Your task to perform on an android device: turn on showing notifications on the lock screen Image 0: 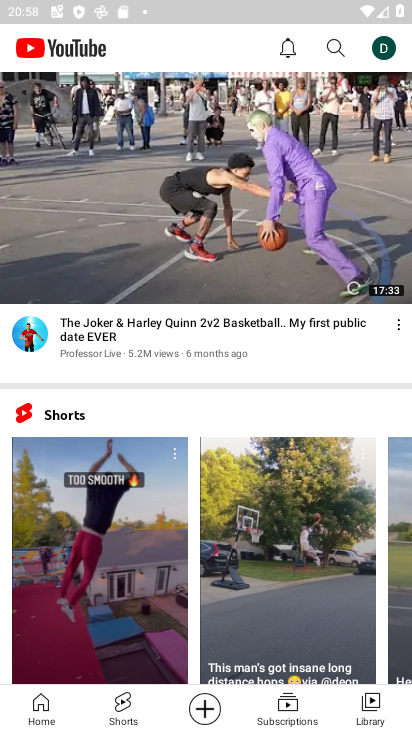
Step 0: press home button
Your task to perform on an android device: turn on showing notifications on the lock screen Image 1: 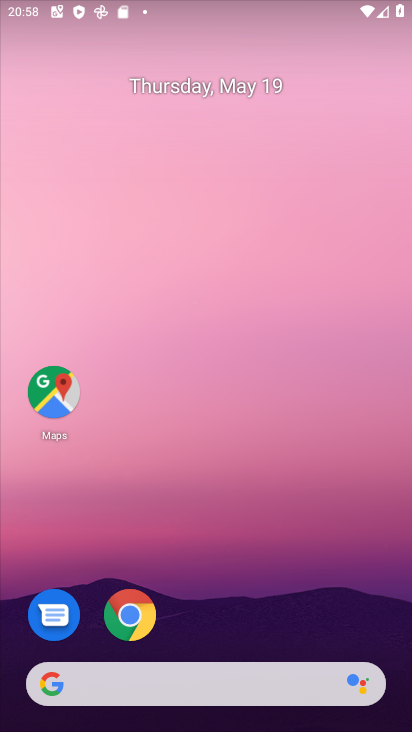
Step 1: drag from (239, 595) to (277, 26)
Your task to perform on an android device: turn on showing notifications on the lock screen Image 2: 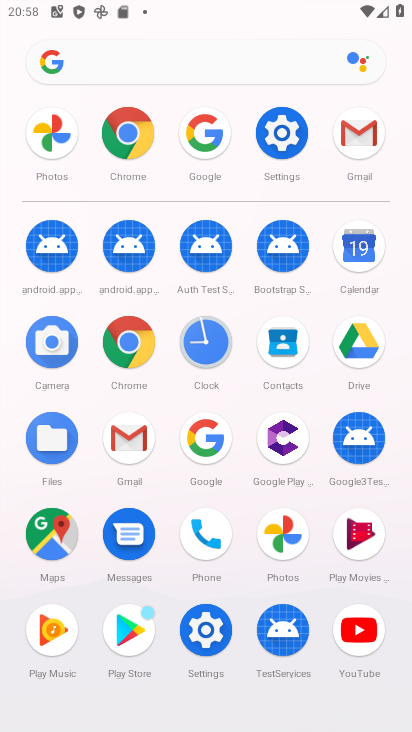
Step 2: click (277, 125)
Your task to perform on an android device: turn on showing notifications on the lock screen Image 3: 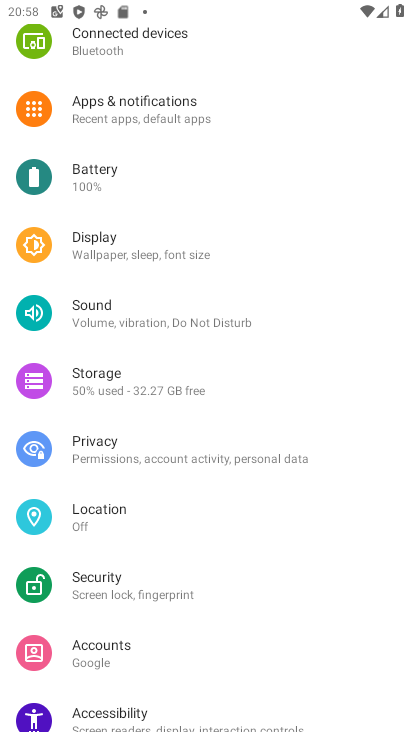
Step 3: click (142, 117)
Your task to perform on an android device: turn on showing notifications on the lock screen Image 4: 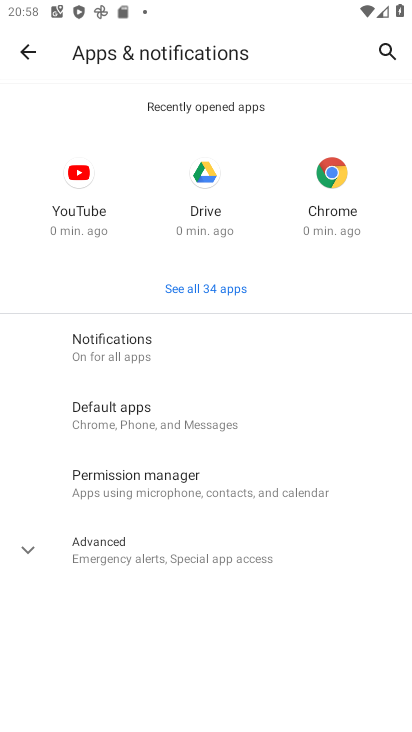
Step 4: click (138, 332)
Your task to perform on an android device: turn on showing notifications on the lock screen Image 5: 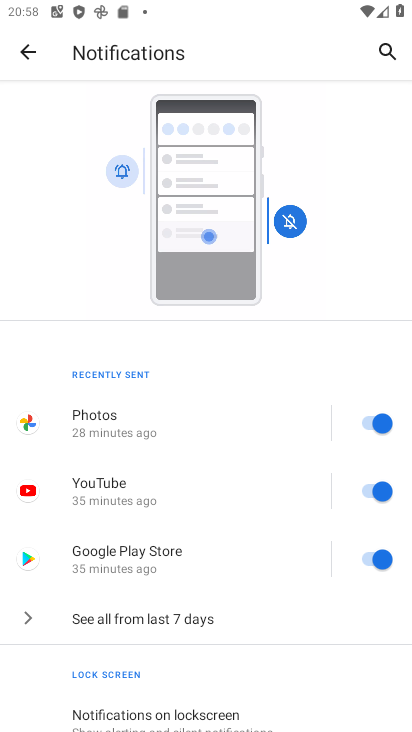
Step 5: click (159, 721)
Your task to perform on an android device: turn on showing notifications on the lock screen Image 6: 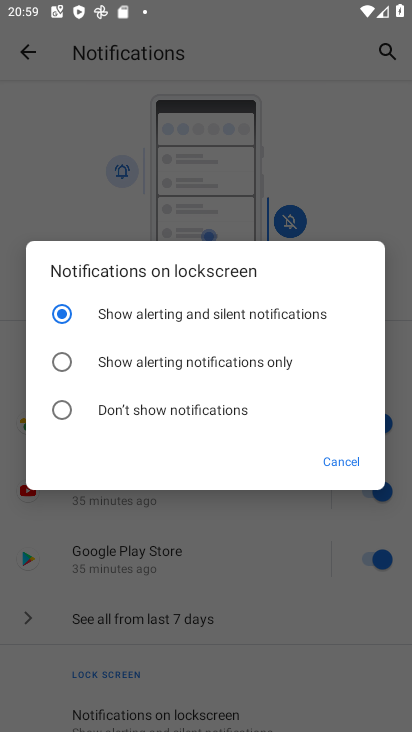
Step 6: task complete